Your task to perform on an android device: turn on the 24-hour format for clock Image 0: 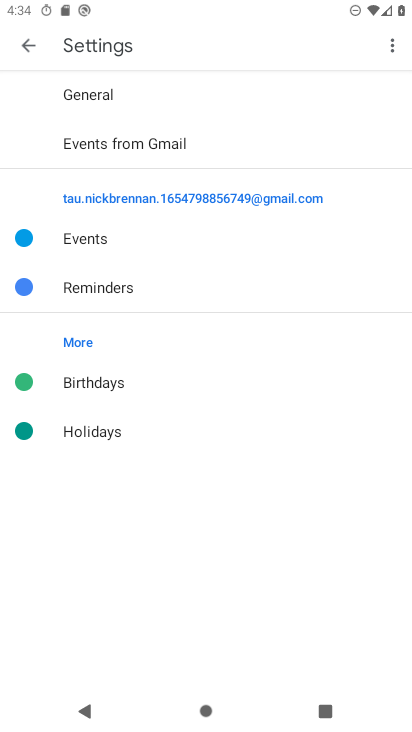
Step 0: press home button
Your task to perform on an android device: turn on the 24-hour format for clock Image 1: 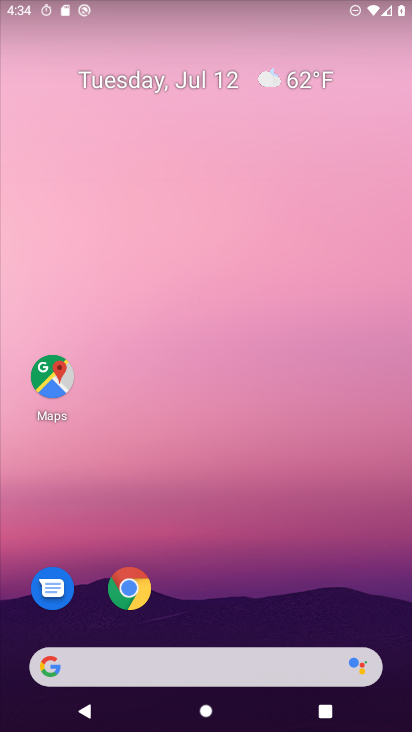
Step 1: drag from (269, 604) to (355, 89)
Your task to perform on an android device: turn on the 24-hour format for clock Image 2: 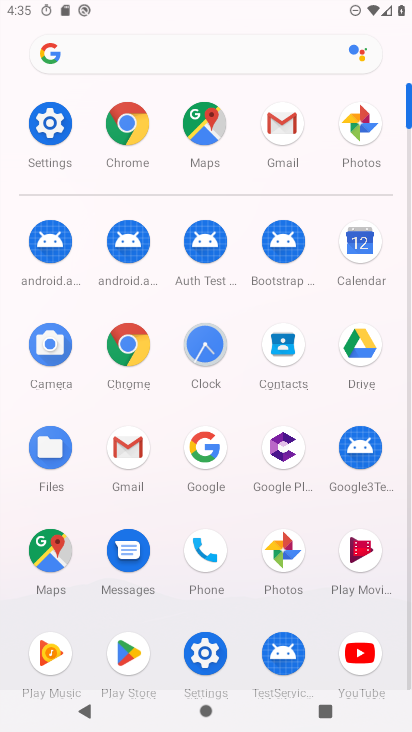
Step 2: click (59, 133)
Your task to perform on an android device: turn on the 24-hour format for clock Image 3: 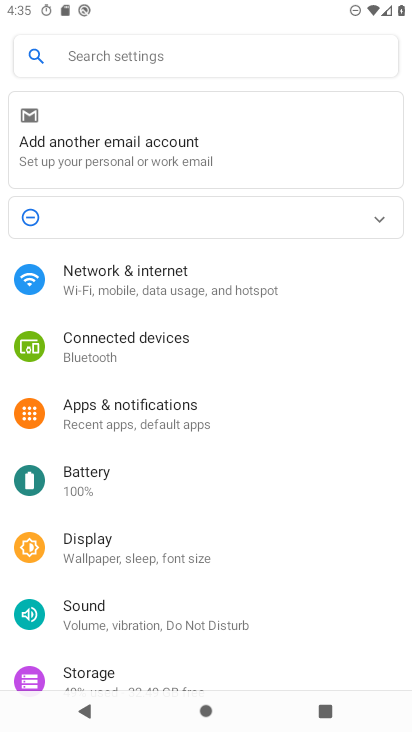
Step 3: drag from (174, 615) to (205, 245)
Your task to perform on an android device: turn on the 24-hour format for clock Image 4: 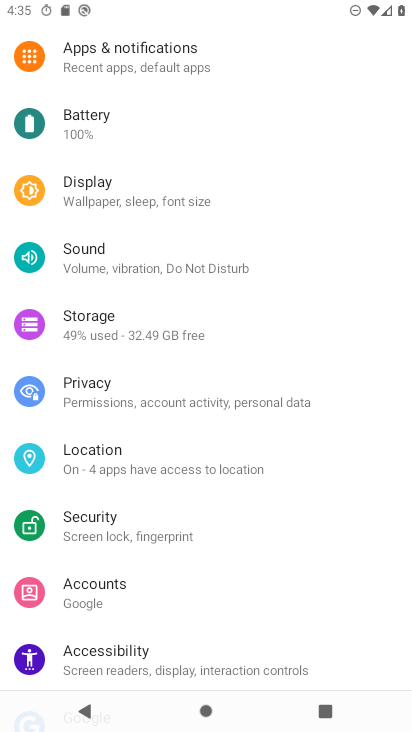
Step 4: drag from (149, 590) to (173, 204)
Your task to perform on an android device: turn on the 24-hour format for clock Image 5: 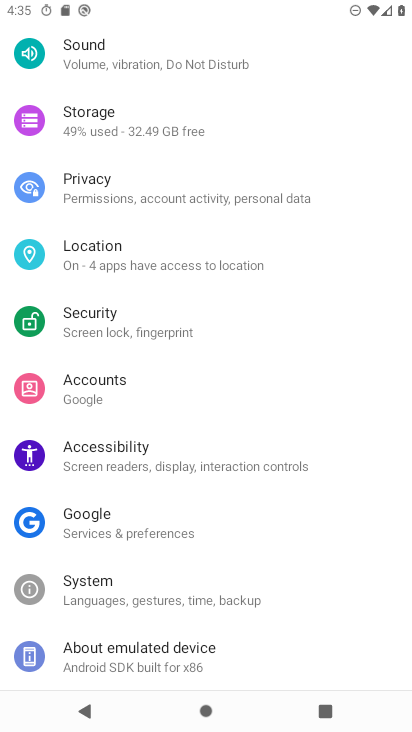
Step 5: click (134, 603)
Your task to perform on an android device: turn on the 24-hour format for clock Image 6: 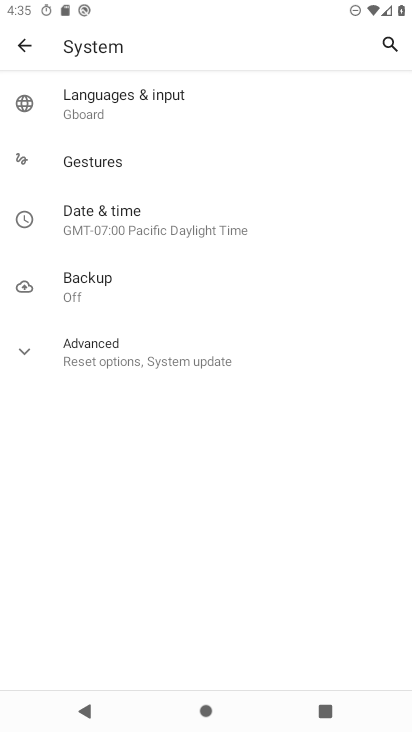
Step 6: click (136, 217)
Your task to perform on an android device: turn on the 24-hour format for clock Image 7: 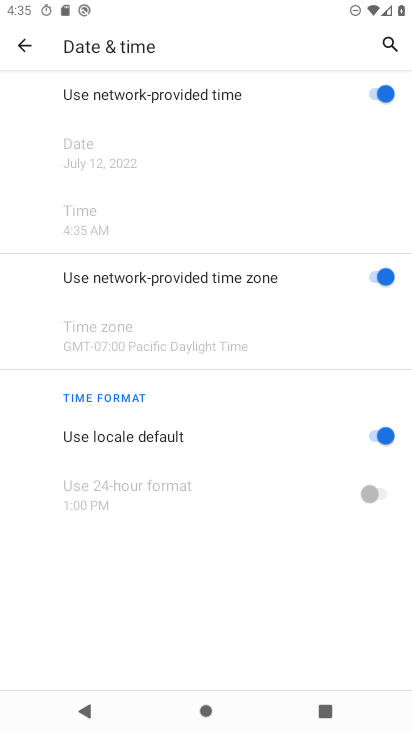
Step 7: click (365, 429)
Your task to perform on an android device: turn on the 24-hour format for clock Image 8: 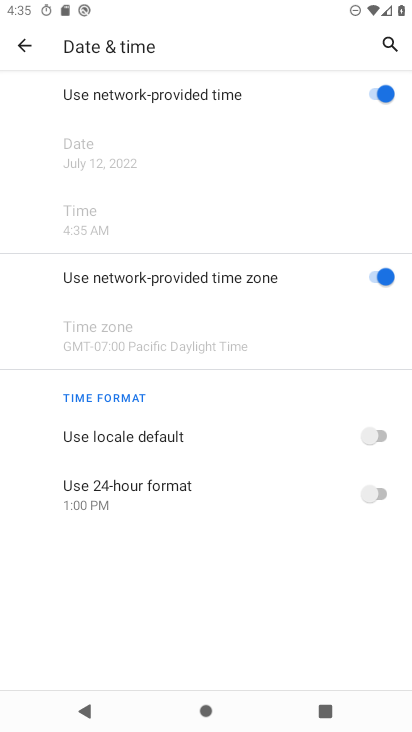
Step 8: click (391, 492)
Your task to perform on an android device: turn on the 24-hour format for clock Image 9: 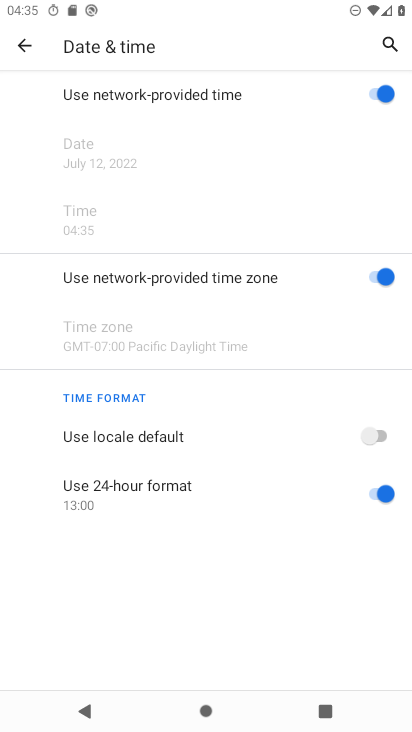
Step 9: task complete